Your task to perform on an android device: Do I have any events tomorrow? Image 0: 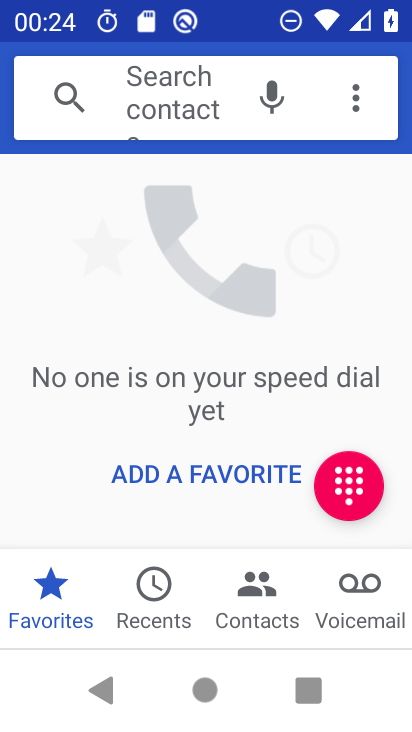
Step 0: press home button
Your task to perform on an android device: Do I have any events tomorrow? Image 1: 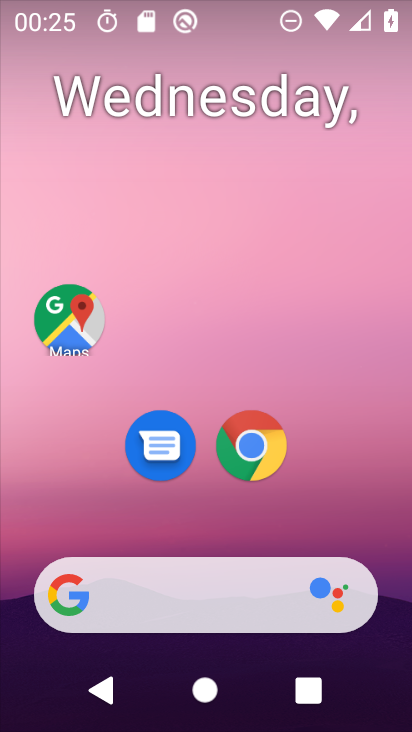
Step 1: drag from (269, 523) to (404, 3)
Your task to perform on an android device: Do I have any events tomorrow? Image 2: 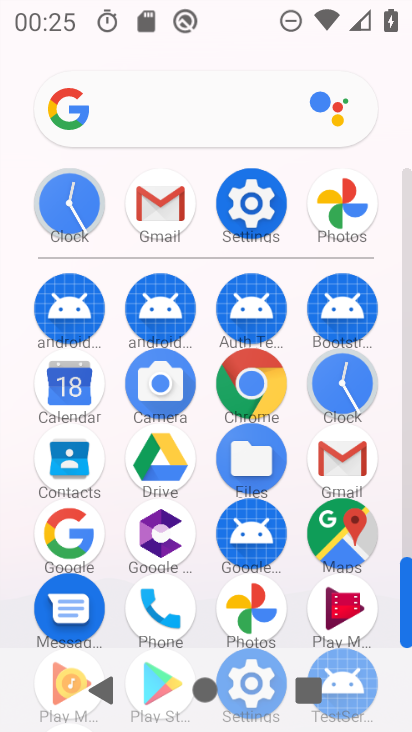
Step 2: click (69, 380)
Your task to perform on an android device: Do I have any events tomorrow? Image 3: 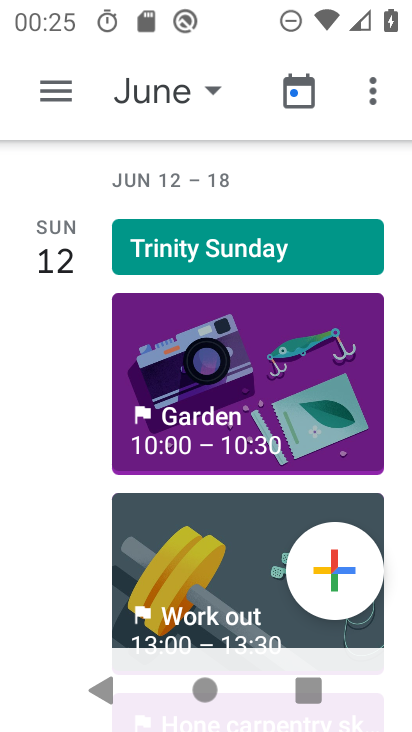
Step 3: click (243, 103)
Your task to perform on an android device: Do I have any events tomorrow? Image 4: 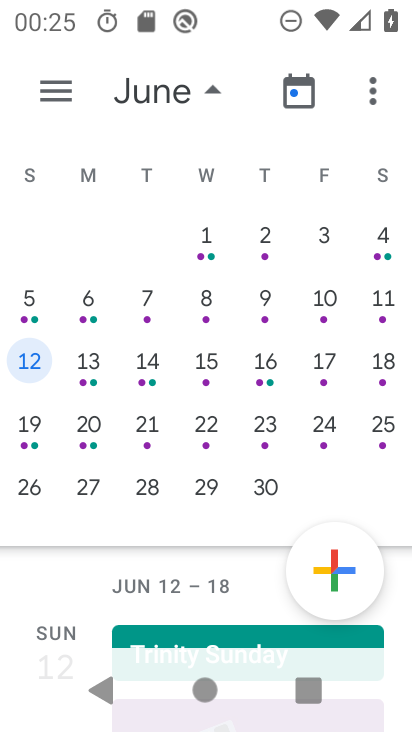
Step 4: drag from (146, 317) to (397, 321)
Your task to perform on an android device: Do I have any events tomorrow? Image 5: 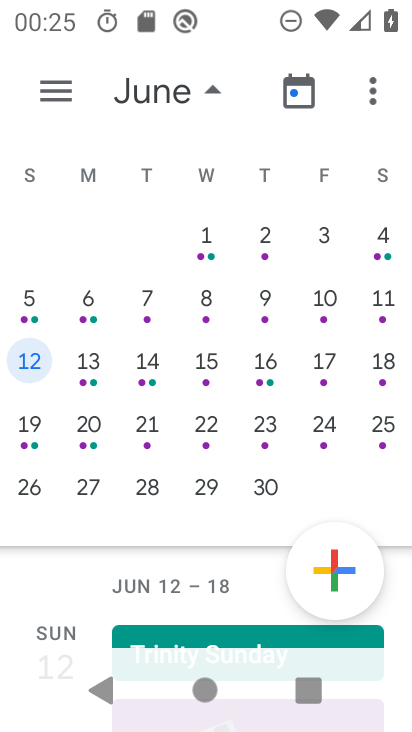
Step 5: drag from (66, 307) to (392, 393)
Your task to perform on an android device: Do I have any events tomorrow? Image 6: 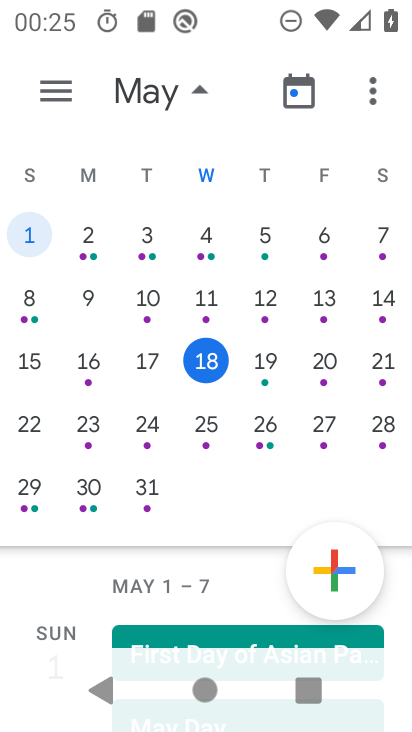
Step 6: click (253, 358)
Your task to perform on an android device: Do I have any events tomorrow? Image 7: 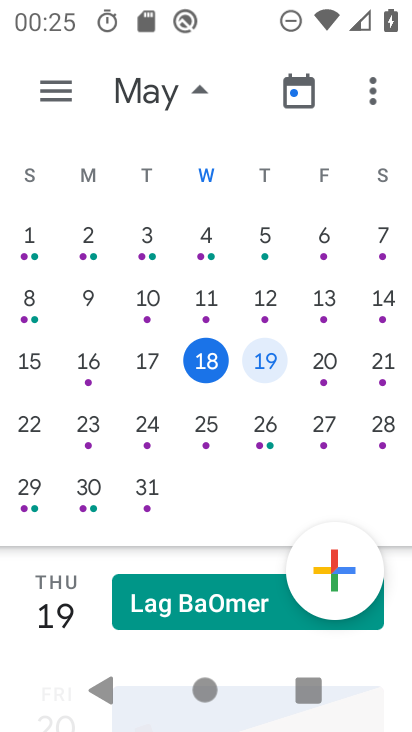
Step 7: task complete